Your task to perform on an android device: When is my next meeting? Image 0: 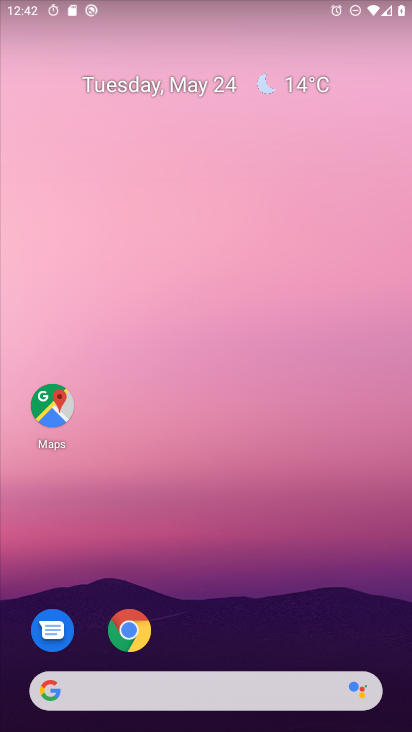
Step 0: drag from (351, 586) to (325, 51)
Your task to perform on an android device: When is my next meeting? Image 1: 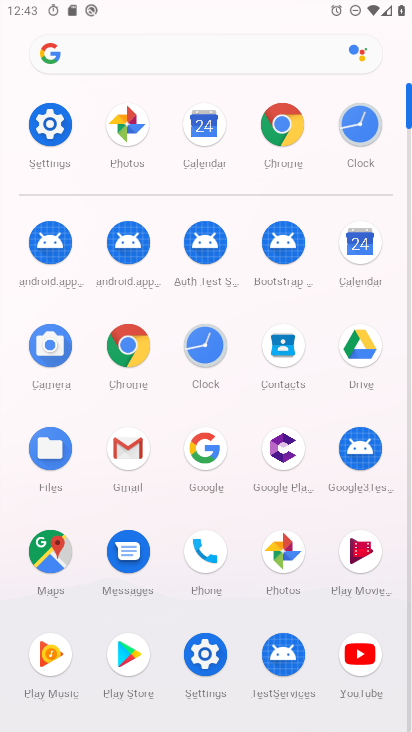
Step 1: click (360, 248)
Your task to perform on an android device: When is my next meeting? Image 2: 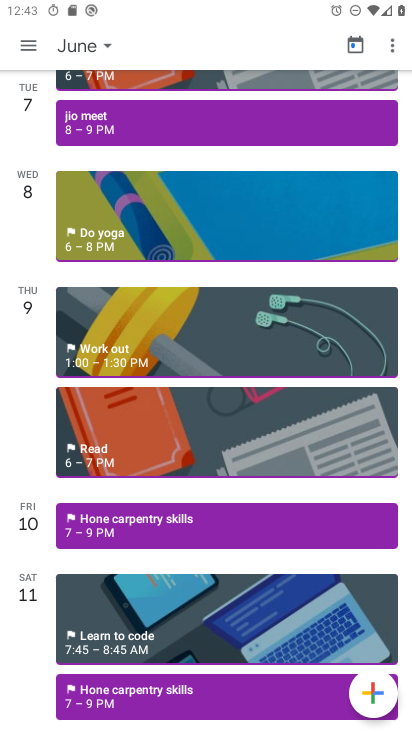
Step 2: click (95, 118)
Your task to perform on an android device: When is my next meeting? Image 3: 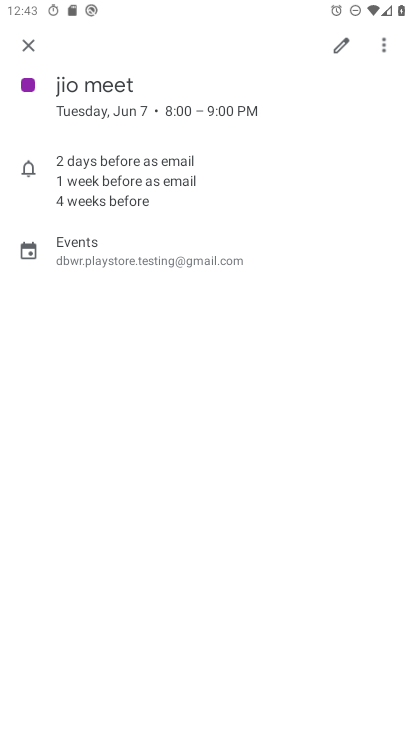
Step 3: task complete